Your task to perform on an android device: Open calendar and show me the second week of next month Image 0: 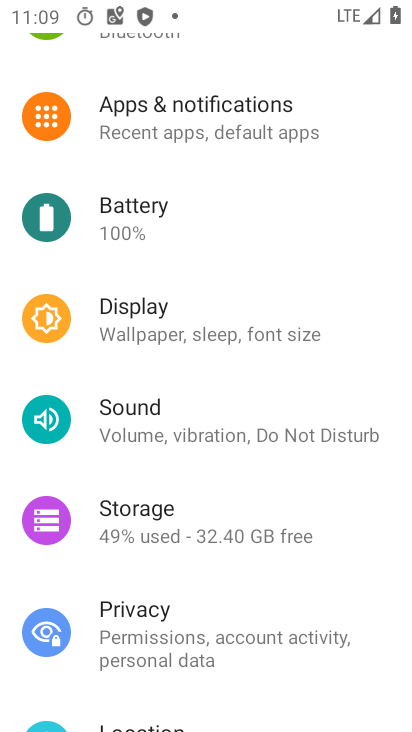
Step 0: press home button
Your task to perform on an android device: Open calendar and show me the second week of next month Image 1: 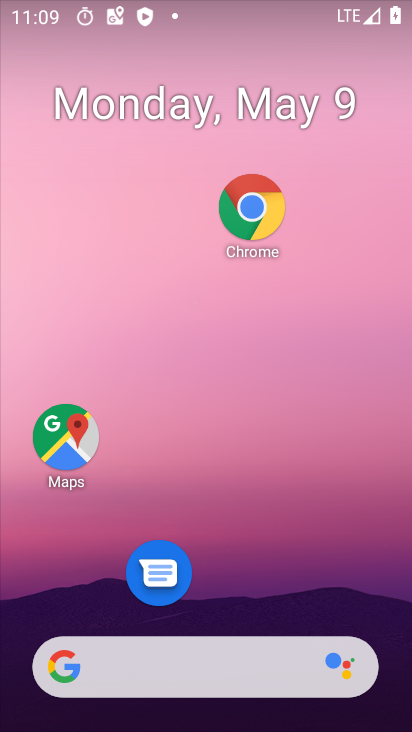
Step 1: drag from (165, 635) to (240, 64)
Your task to perform on an android device: Open calendar and show me the second week of next month Image 2: 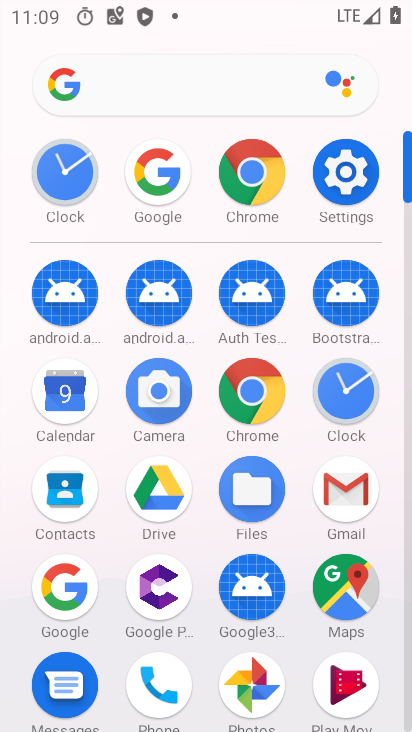
Step 2: click (70, 404)
Your task to perform on an android device: Open calendar and show me the second week of next month Image 3: 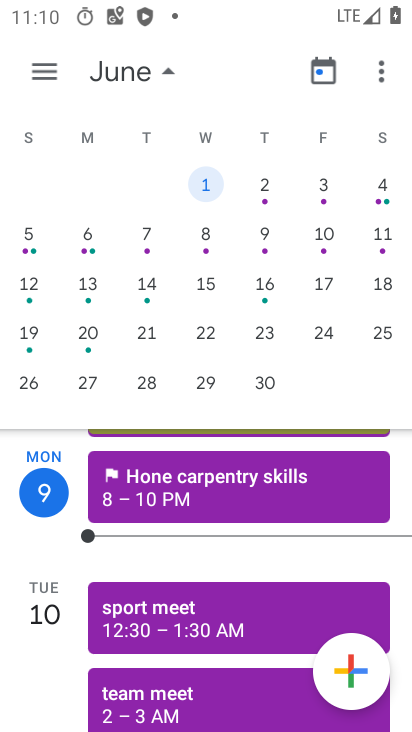
Step 3: click (29, 292)
Your task to perform on an android device: Open calendar and show me the second week of next month Image 4: 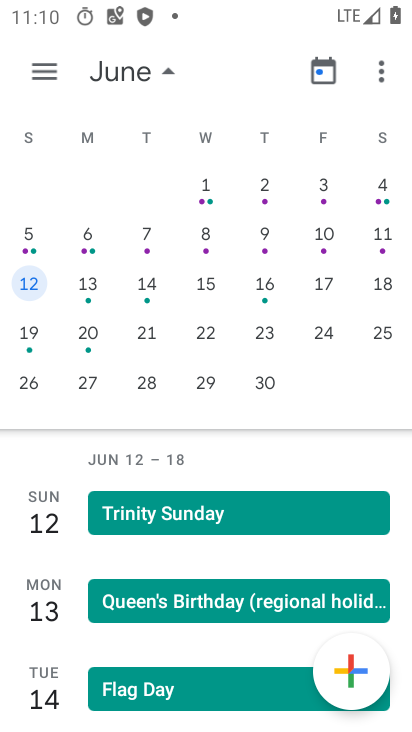
Step 4: task complete